Your task to perform on an android device: Open internet settings Image 0: 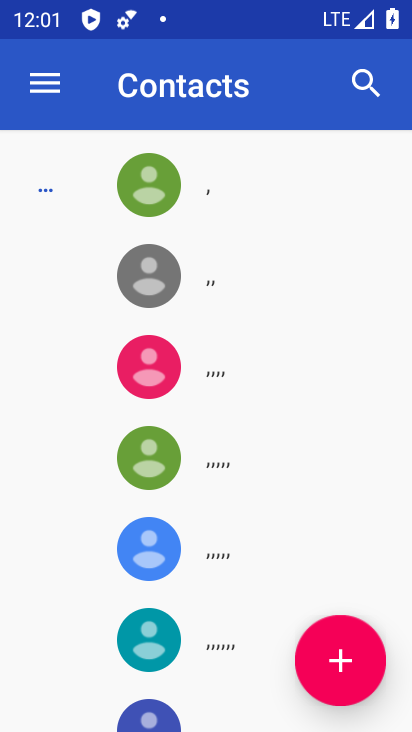
Step 0: press home button
Your task to perform on an android device: Open internet settings Image 1: 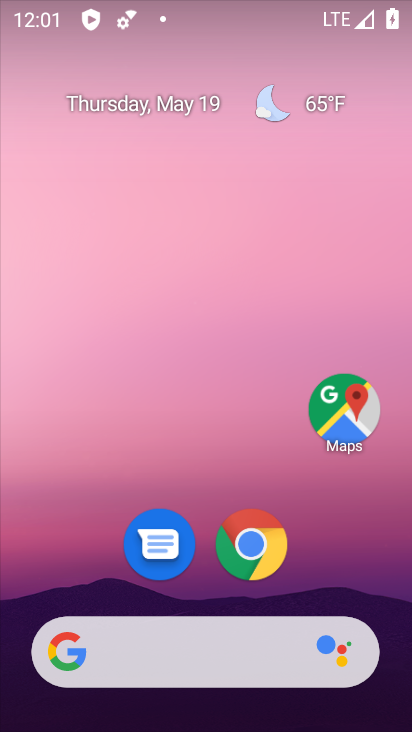
Step 1: drag from (378, 567) to (375, 216)
Your task to perform on an android device: Open internet settings Image 2: 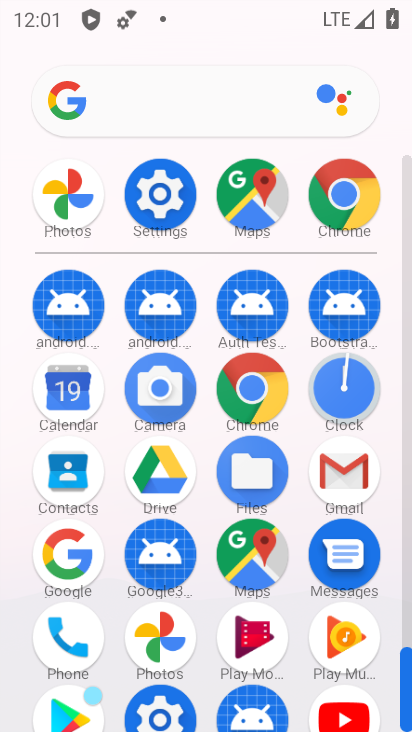
Step 2: click (182, 212)
Your task to perform on an android device: Open internet settings Image 3: 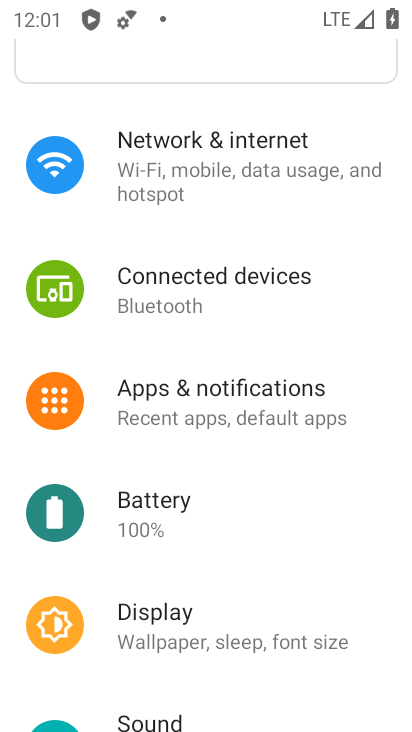
Step 3: drag from (342, 537) to (346, 340)
Your task to perform on an android device: Open internet settings Image 4: 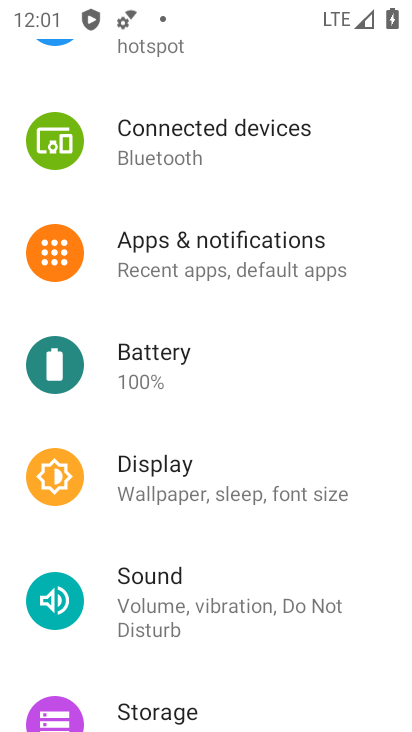
Step 4: drag from (349, 613) to (354, 424)
Your task to perform on an android device: Open internet settings Image 5: 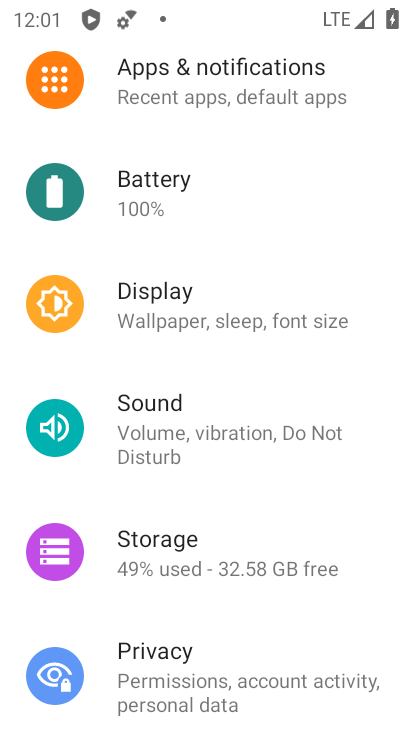
Step 5: drag from (329, 628) to (333, 449)
Your task to perform on an android device: Open internet settings Image 6: 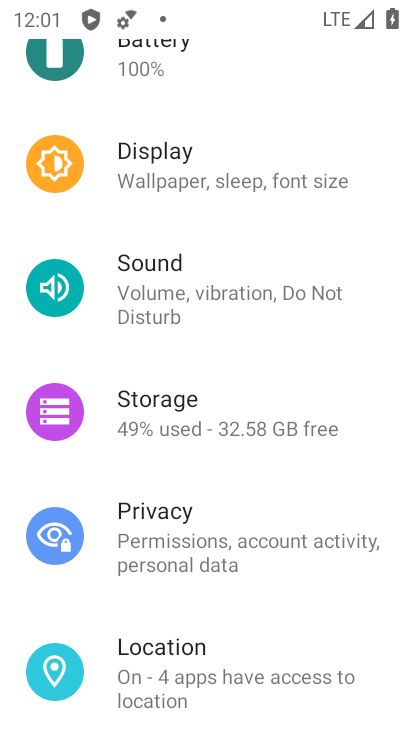
Step 6: drag from (325, 644) to (343, 438)
Your task to perform on an android device: Open internet settings Image 7: 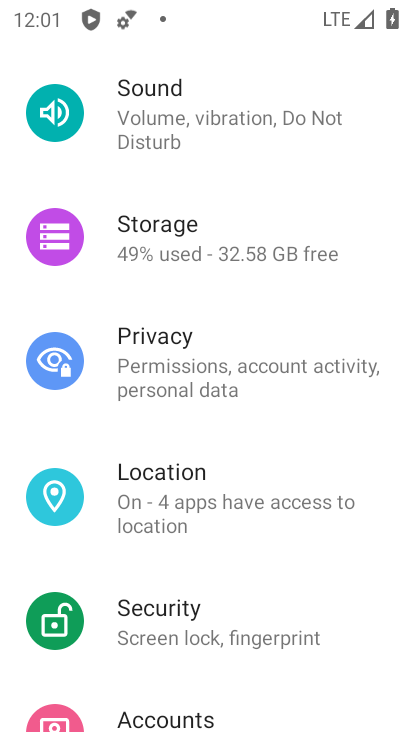
Step 7: drag from (318, 599) to (328, 514)
Your task to perform on an android device: Open internet settings Image 8: 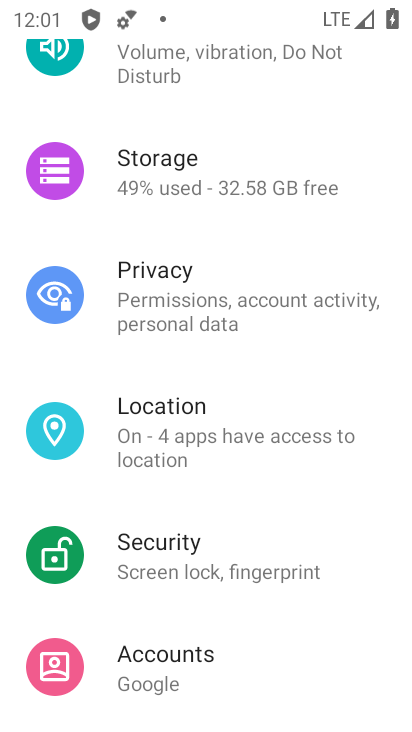
Step 8: drag from (303, 673) to (327, 481)
Your task to perform on an android device: Open internet settings Image 9: 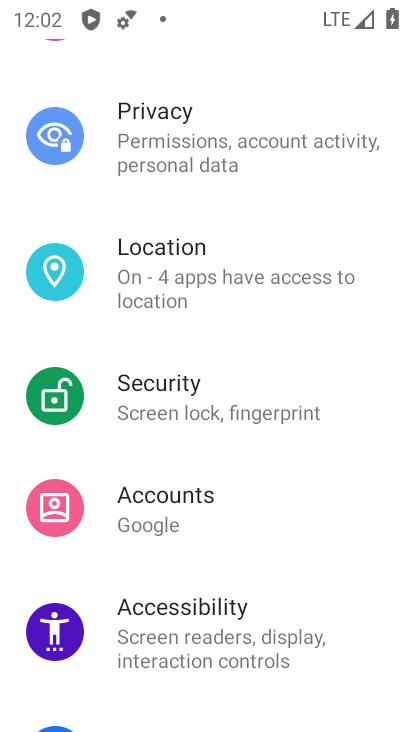
Step 9: drag from (333, 669) to (350, 475)
Your task to perform on an android device: Open internet settings Image 10: 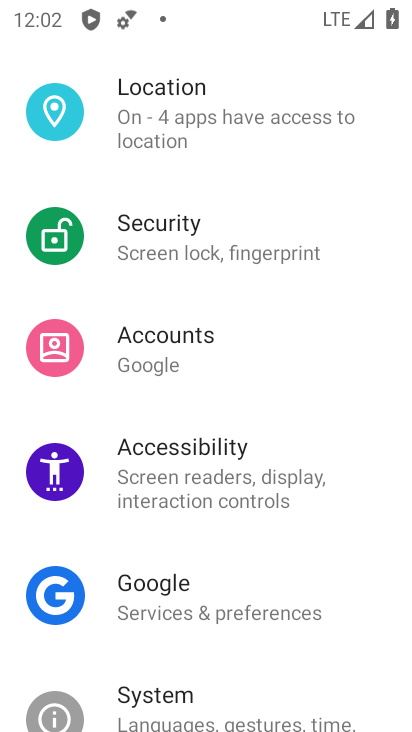
Step 10: drag from (353, 656) to (372, 517)
Your task to perform on an android device: Open internet settings Image 11: 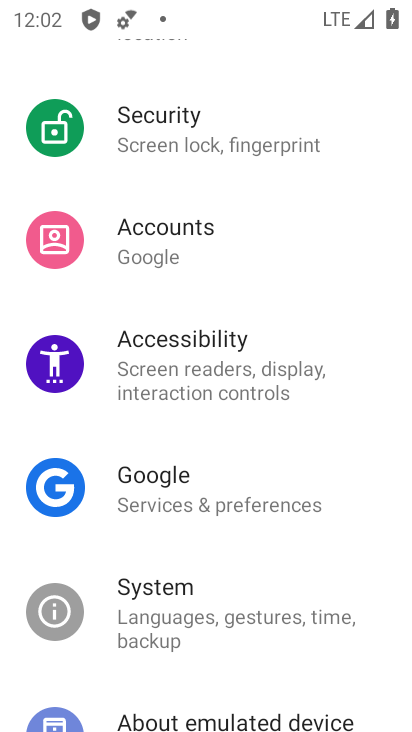
Step 11: drag from (384, 353) to (379, 508)
Your task to perform on an android device: Open internet settings Image 12: 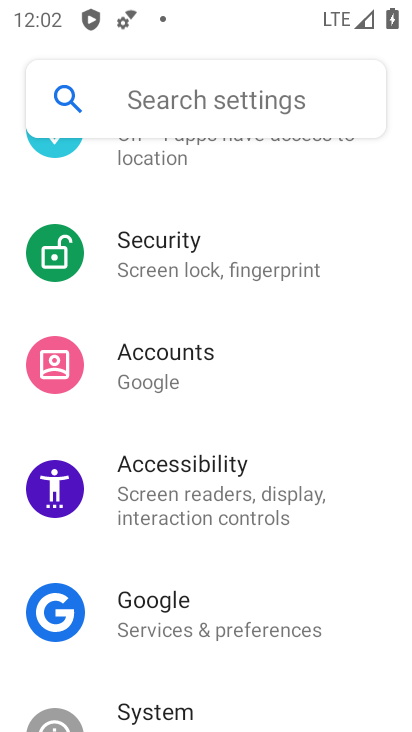
Step 12: drag from (344, 374) to (344, 475)
Your task to perform on an android device: Open internet settings Image 13: 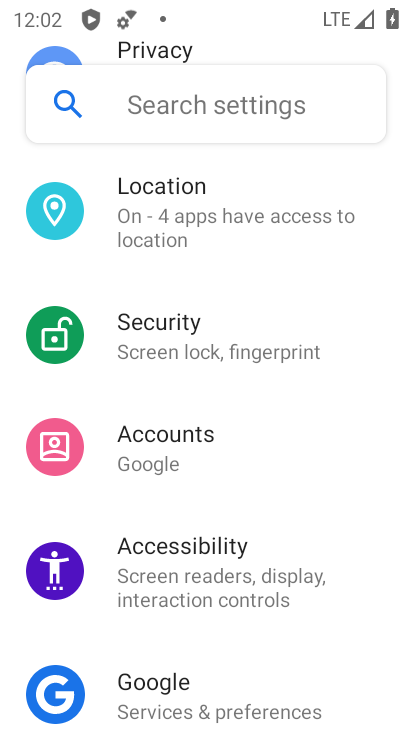
Step 13: drag from (358, 370) to (356, 503)
Your task to perform on an android device: Open internet settings Image 14: 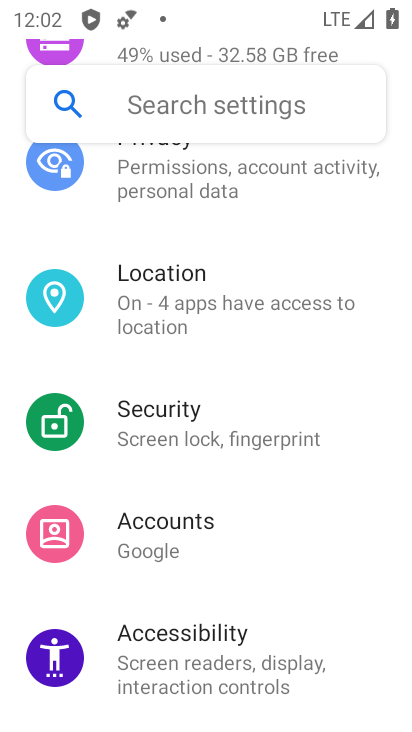
Step 14: drag from (349, 392) to (348, 519)
Your task to perform on an android device: Open internet settings Image 15: 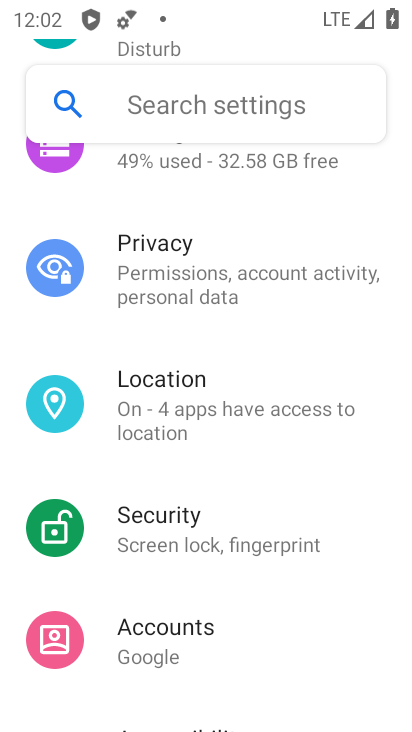
Step 15: drag from (353, 348) to (351, 440)
Your task to perform on an android device: Open internet settings Image 16: 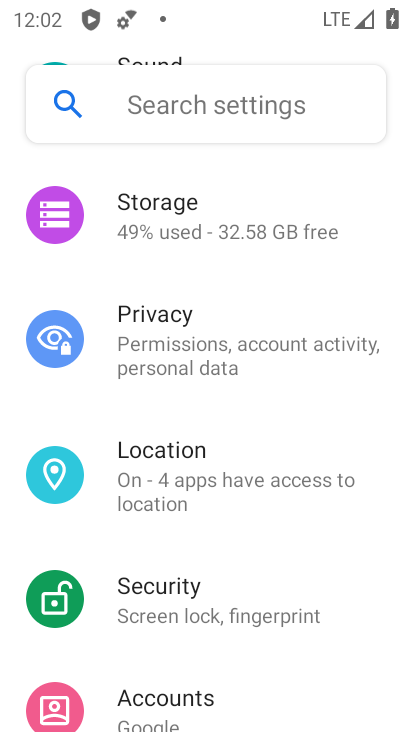
Step 16: drag from (372, 355) to (370, 457)
Your task to perform on an android device: Open internet settings Image 17: 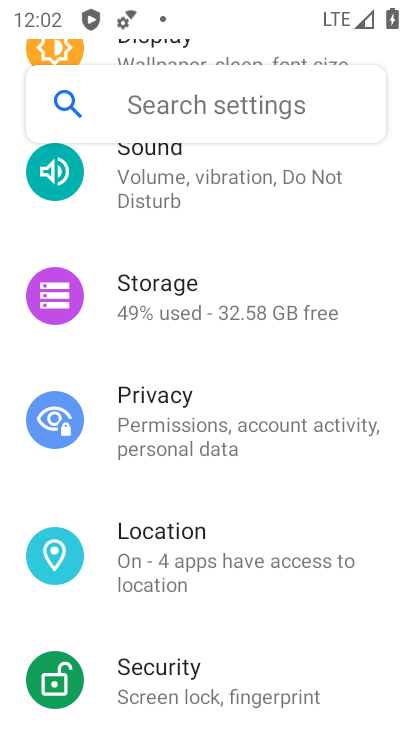
Step 17: drag from (378, 267) to (381, 428)
Your task to perform on an android device: Open internet settings Image 18: 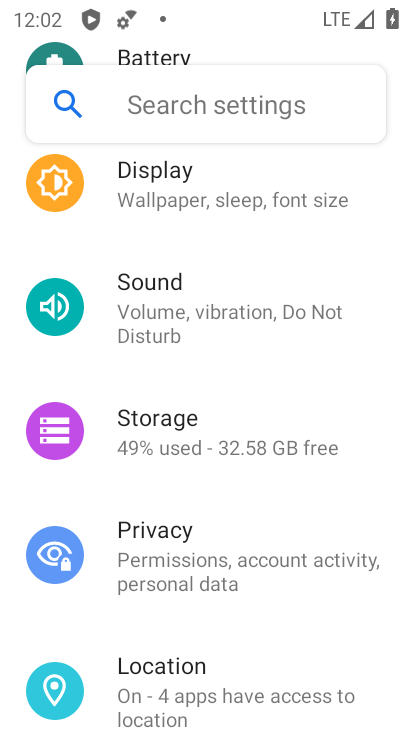
Step 18: drag from (379, 345) to (380, 421)
Your task to perform on an android device: Open internet settings Image 19: 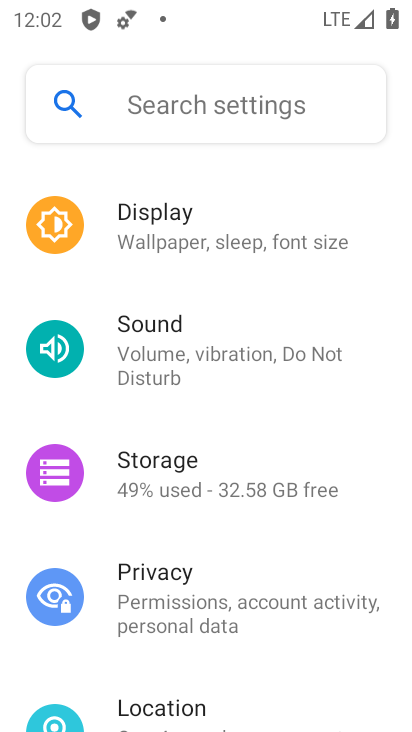
Step 19: drag from (373, 215) to (372, 400)
Your task to perform on an android device: Open internet settings Image 20: 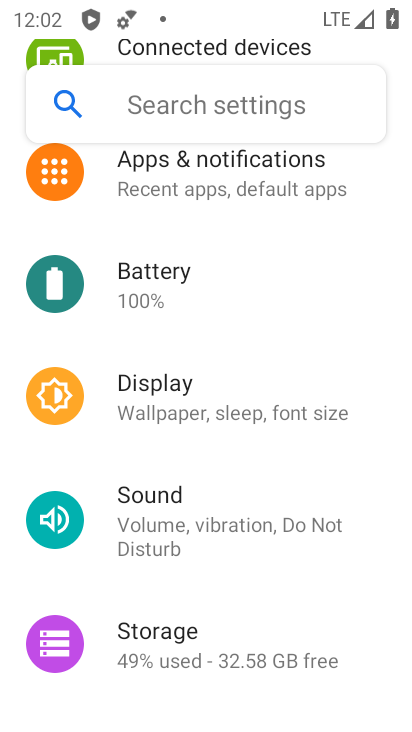
Step 20: drag from (365, 196) to (351, 422)
Your task to perform on an android device: Open internet settings Image 21: 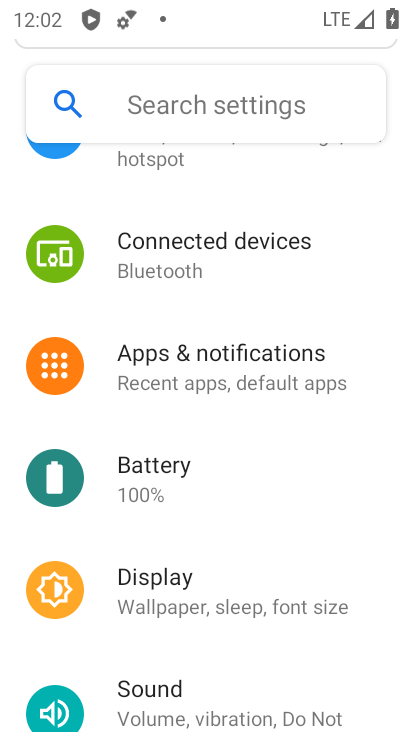
Step 21: drag from (353, 206) to (355, 371)
Your task to perform on an android device: Open internet settings Image 22: 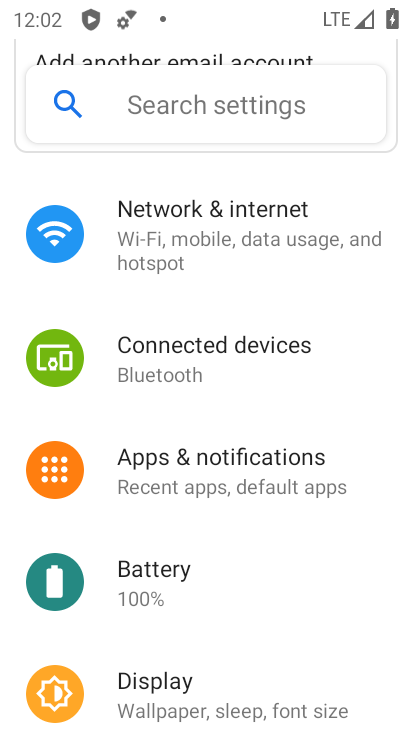
Step 22: click (260, 223)
Your task to perform on an android device: Open internet settings Image 23: 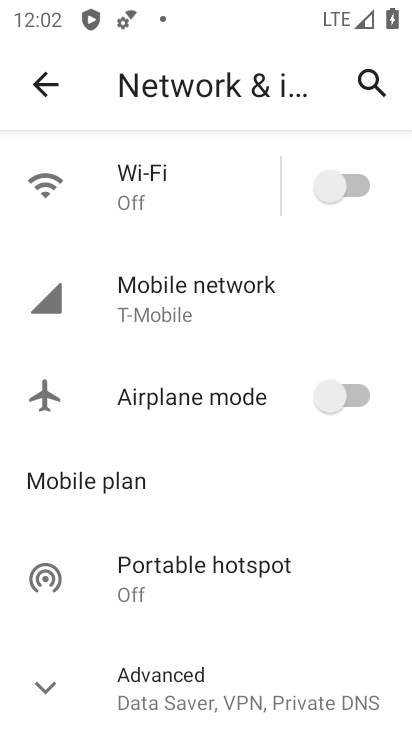
Step 23: task complete